Your task to perform on an android device: Search for pizza restaurants on Maps Image 0: 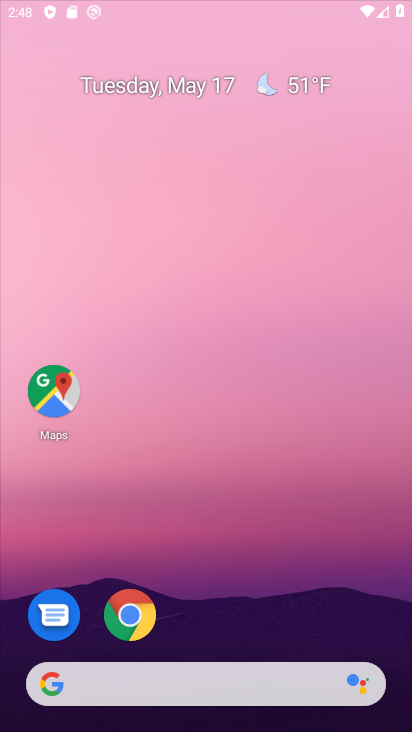
Step 0: press home button
Your task to perform on an android device: Search for pizza restaurants on Maps Image 1: 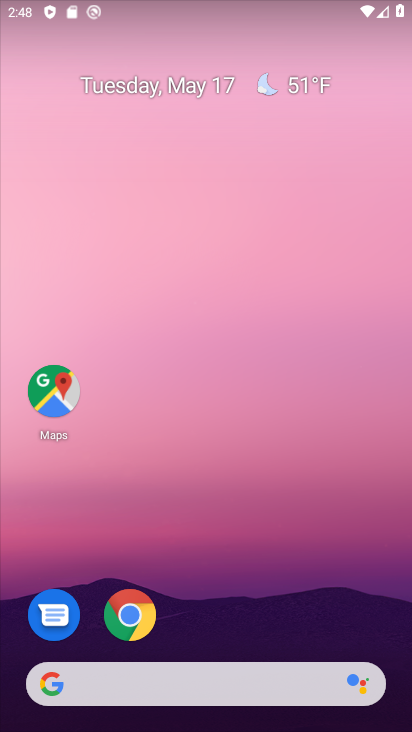
Step 1: click (53, 389)
Your task to perform on an android device: Search for pizza restaurants on Maps Image 2: 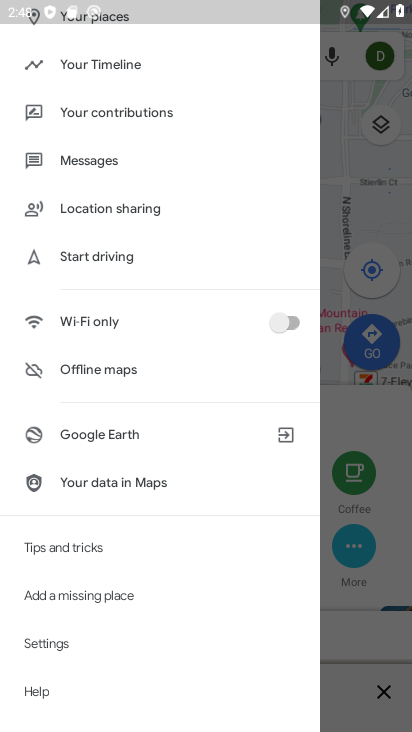
Step 2: click (355, 264)
Your task to perform on an android device: Search for pizza restaurants on Maps Image 3: 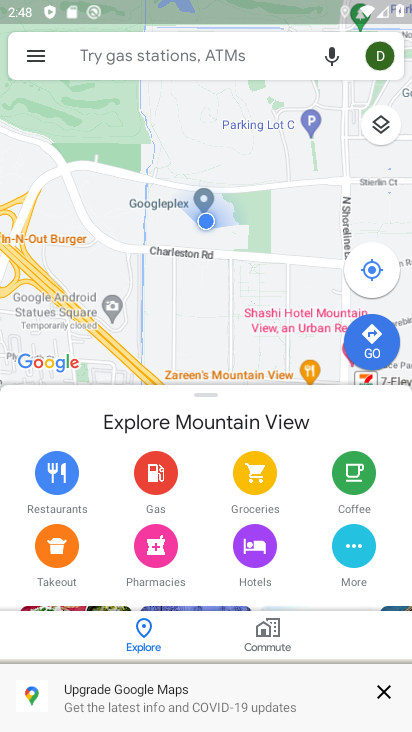
Step 3: click (143, 44)
Your task to perform on an android device: Search for pizza restaurants on Maps Image 4: 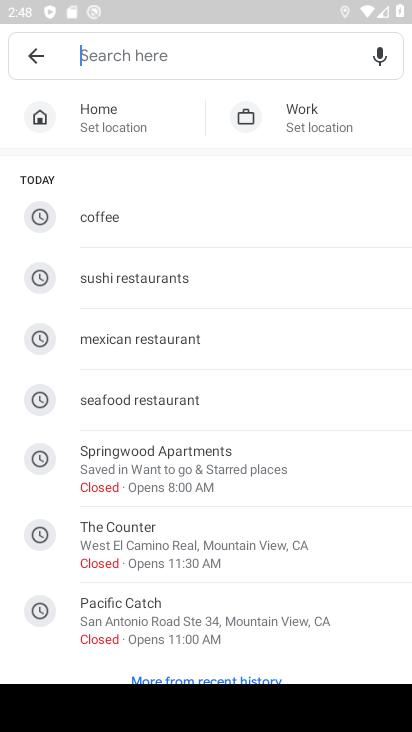
Step 4: drag from (167, 510) to (188, 147)
Your task to perform on an android device: Search for pizza restaurants on Maps Image 5: 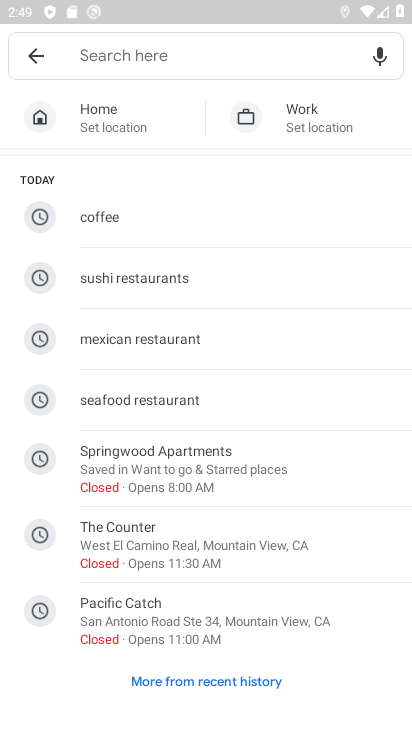
Step 5: click (118, 52)
Your task to perform on an android device: Search for pizza restaurants on Maps Image 6: 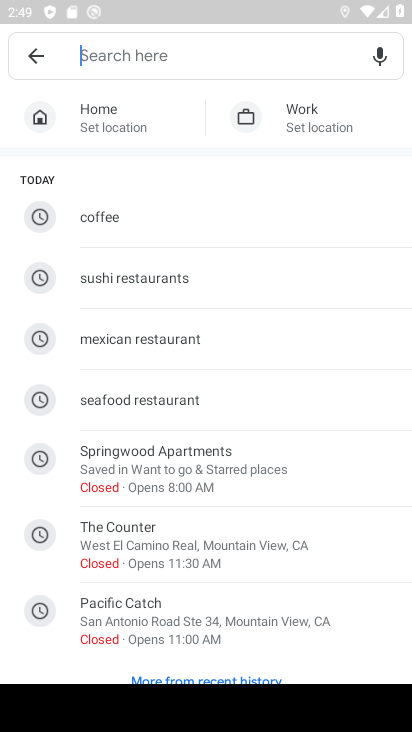
Step 6: type "pizza"
Your task to perform on an android device: Search for pizza restaurants on Maps Image 7: 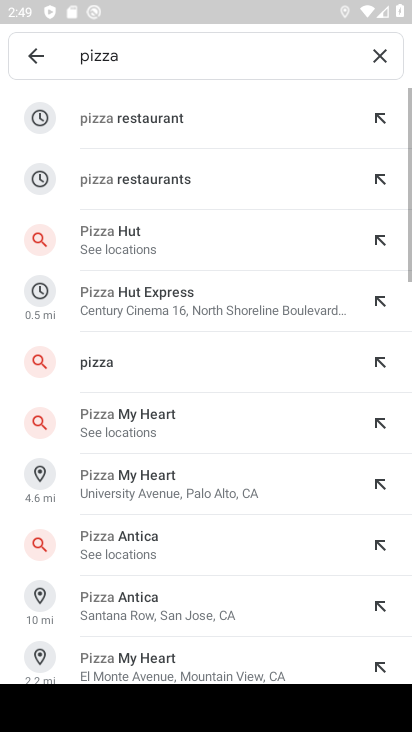
Step 7: click (186, 126)
Your task to perform on an android device: Search for pizza restaurants on Maps Image 8: 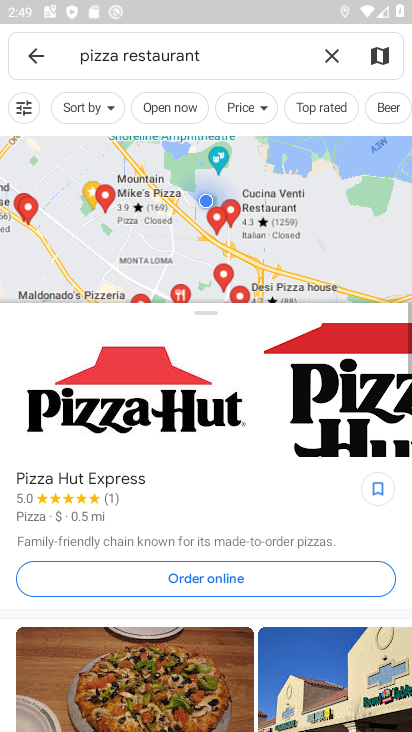
Step 8: drag from (220, 307) to (239, 142)
Your task to perform on an android device: Search for pizza restaurants on Maps Image 9: 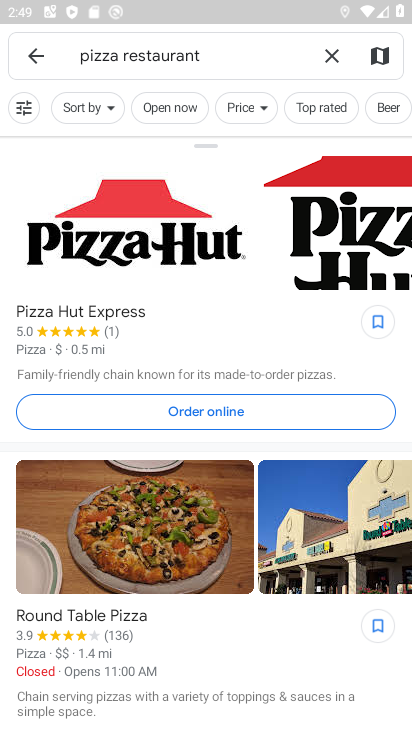
Step 9: drag from (218, 639) to (245, 183)
Your task to perform on an android device: Search for pizza restaurants on Maps Image 10: 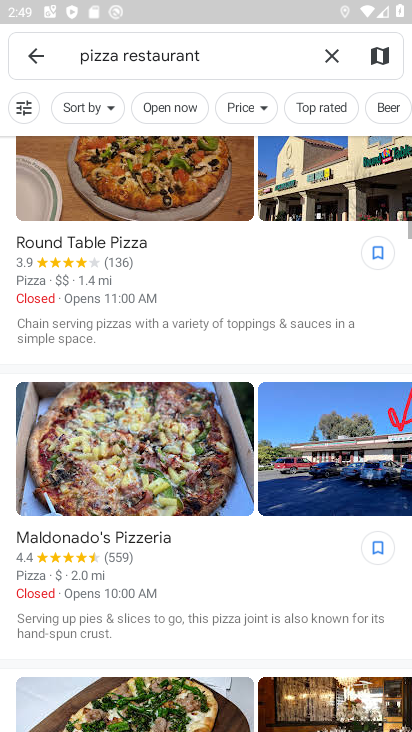
Step 10: drag from (237, 600) to (261, 204)
Your task to perform on an android device: Search for pizza restaurants on Maps Image 11: 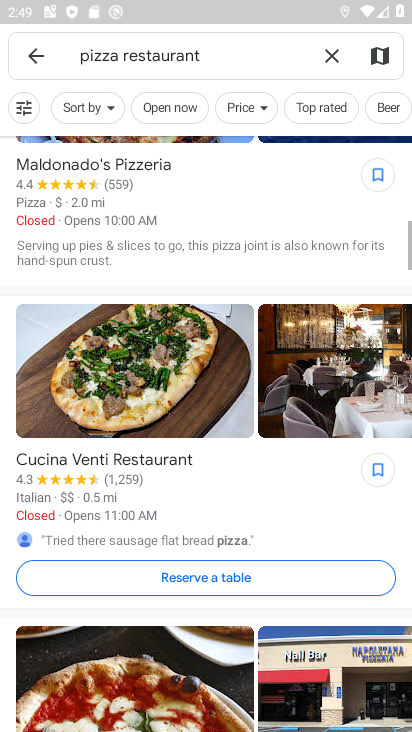
Step 11: drag from (218, 622) to (231, 475)
Your task to perform on an android device: Search for pizza restaurants on Maps Image 12: 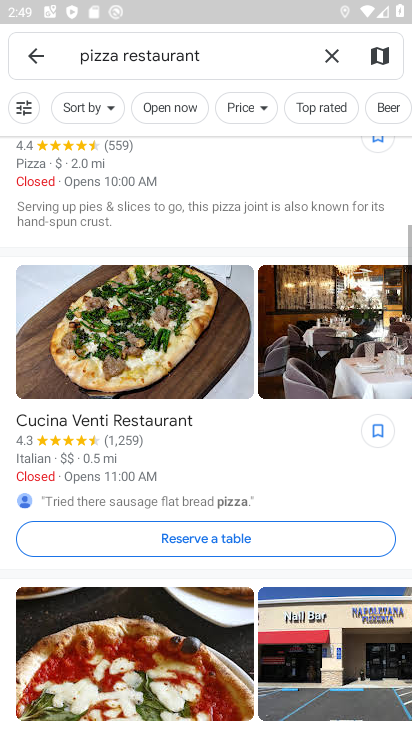
Step 12: click (247, 272)
Your task to perform on an android device: Search for pizza restaurants on Maps Image 13: 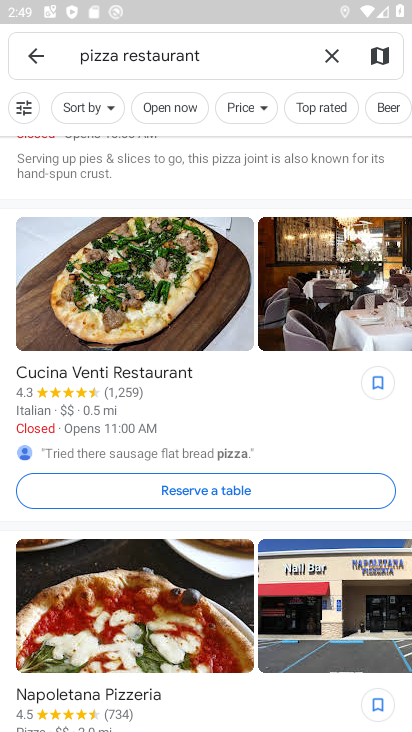
Step 13: task complete